Your task to perform on an android device: open chrome privacy settings Image 0: 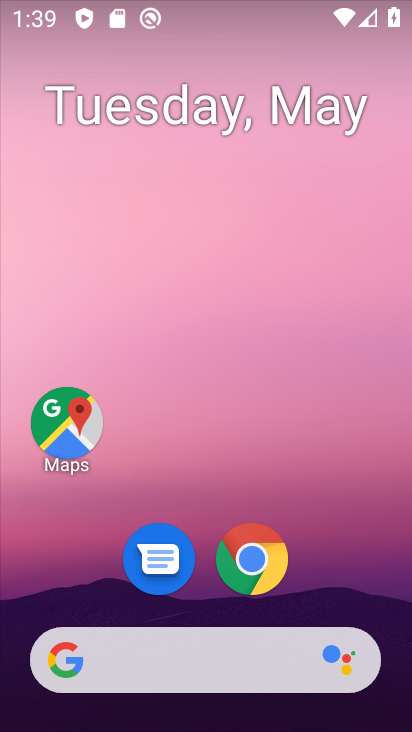
Step 0: drag from (390, 639) to (282, 62)
Your task to perform on an android device: open chrome privacy settings Image 1: 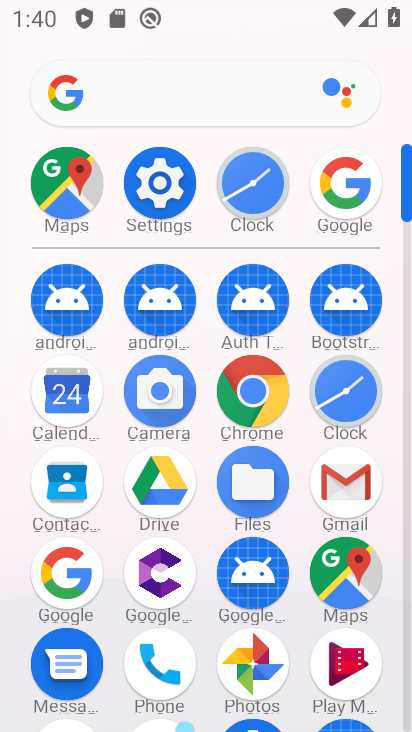
Step 1: click (246, 388)
Your task to perform on an android device: open chrome privacy settings Image 2: 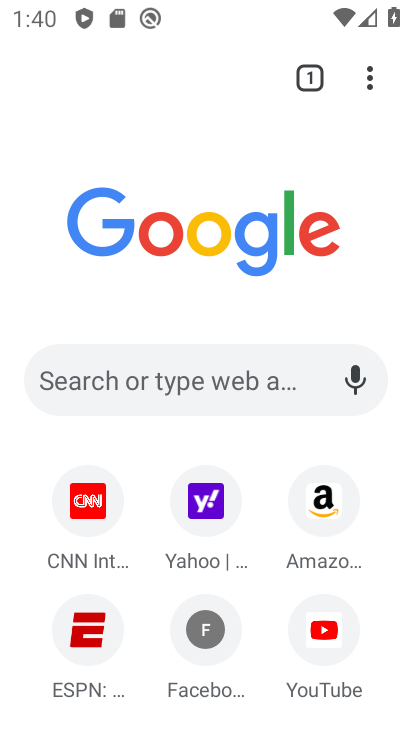
Step 2: click (373, 69)
Your task to perform on an android device: open chrome privacy settings Image 3: 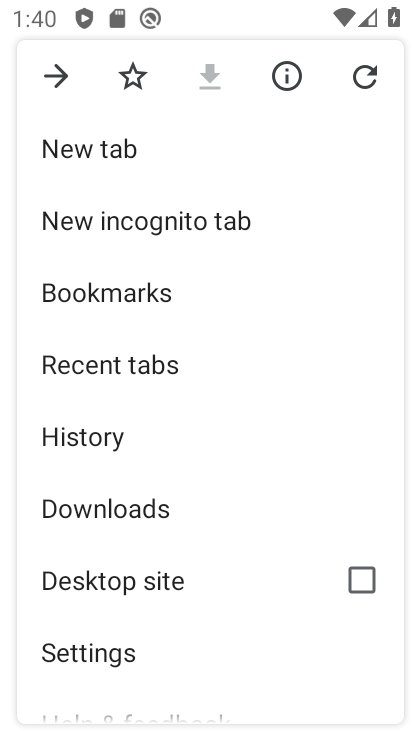
Step 3: click (135, 665)
Your task to perform on an android device: open chrome privacy settings Image 4: 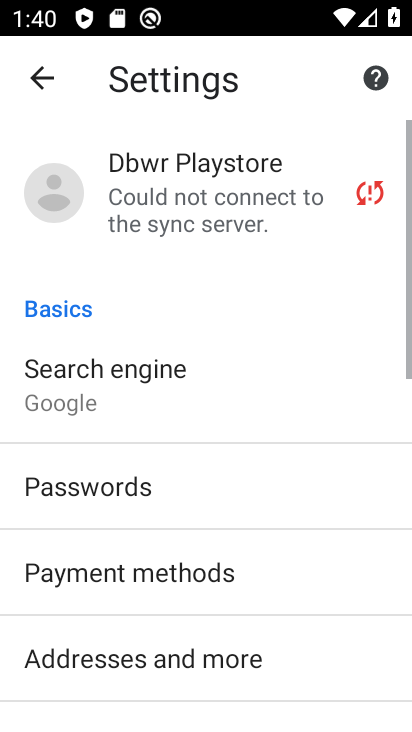
Step 4: drag from (135, 665) to (193, 194)
Your task to perform on an android device: open chrome privacy settings Image 5: 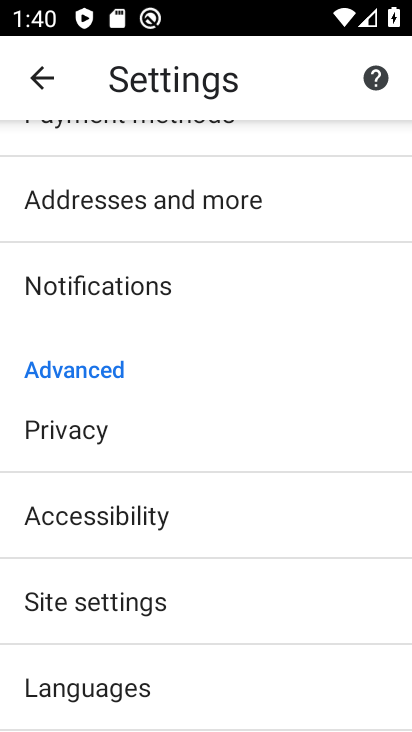
Step 5: click (117, 425)
Your task to perform on an android device: open chrome privacy settings Image 6: 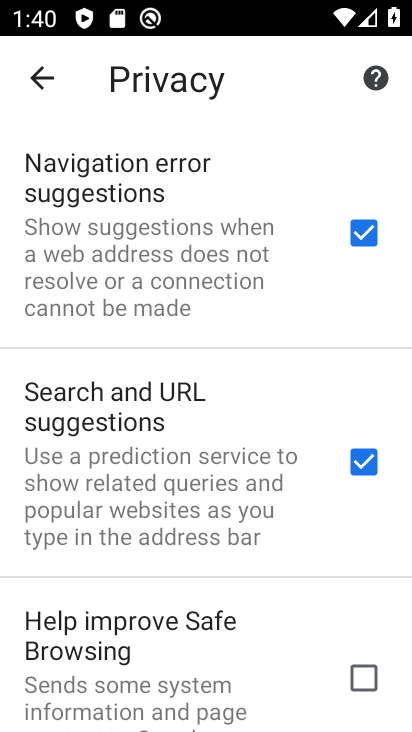
Step 6: task complete